Your task to perform on an android device: toggle airplane mode Image 0: 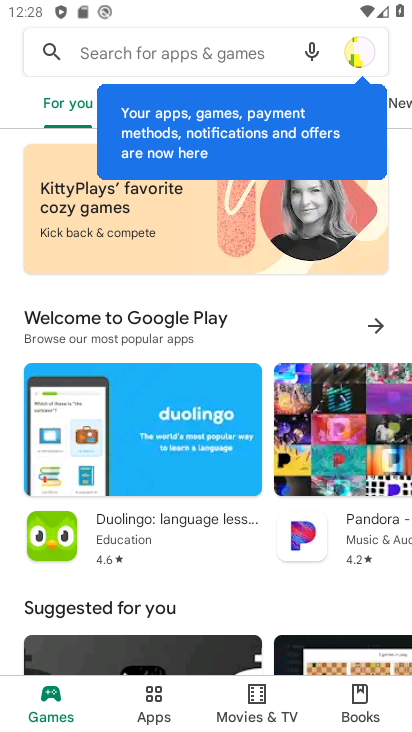
Step 0: press home button
Your task to perform on an android device: toggle airplane mode Image 1: 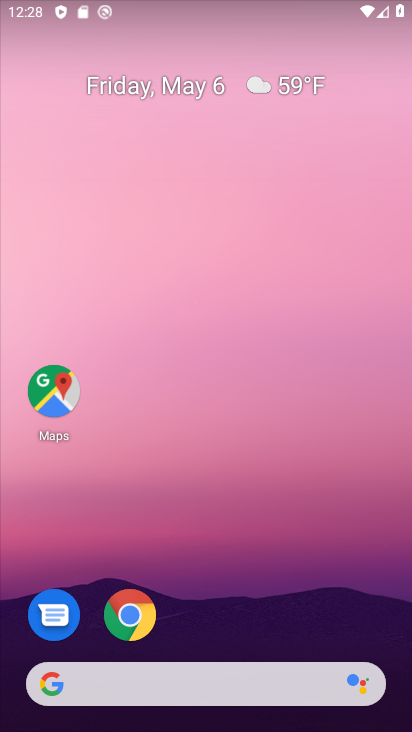
Step 1: drag from (290, 586) to (236, 50)
Your task to perform on an android device: toggle airplane mode Image 2: 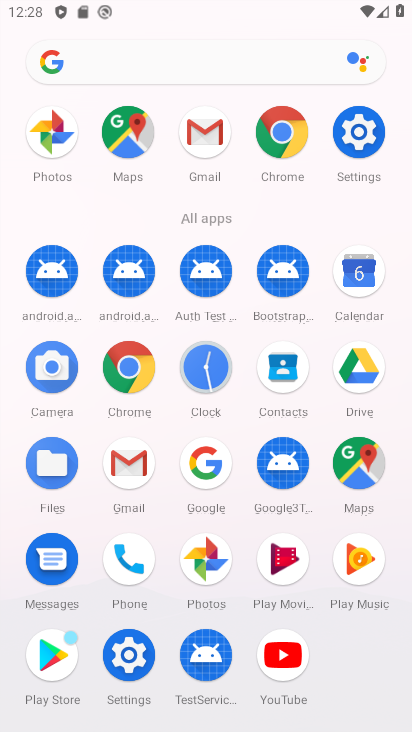
Step 2: click (355, 128)
Your task to perform on an android device: toggle airplane mode Image 3: 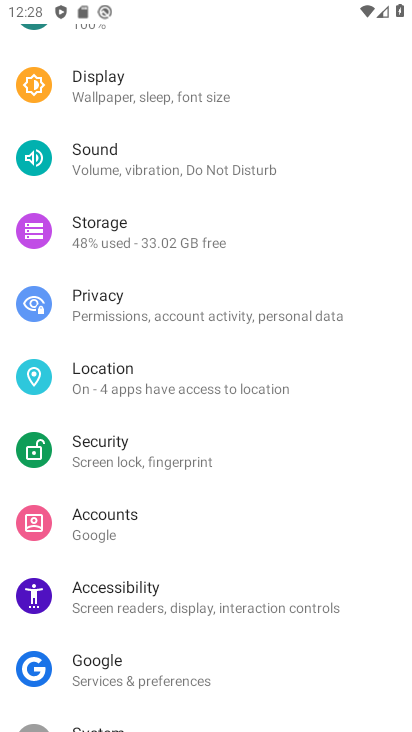
Step 3: drag from (275, 297) to (269, 566)
Your task to perform on an android device: toggle airplane mode Image 4: 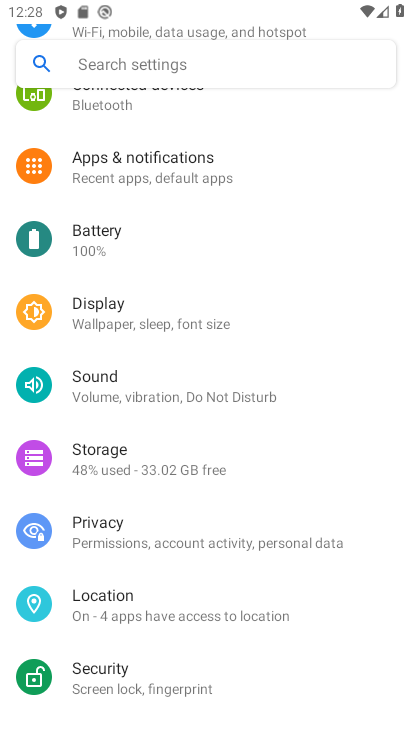
Step 4: drag from (239, 204) to (206, 569)
Your task to perform on an android device: toggle airplane mode Image 5: 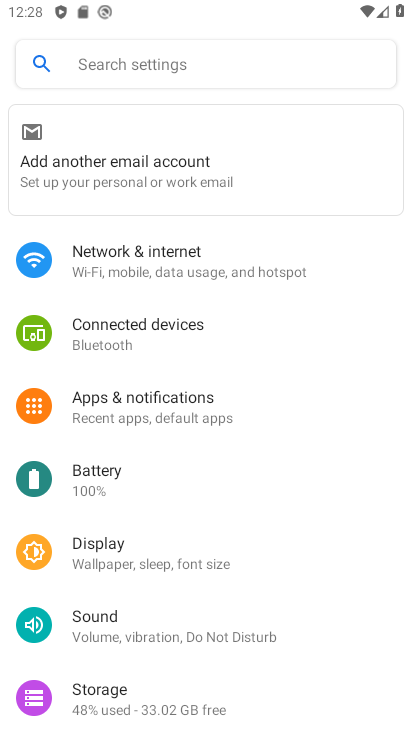
Step 5: click (208, 260)
Your task to perform on an android device: toggle airplane mode Image 6: 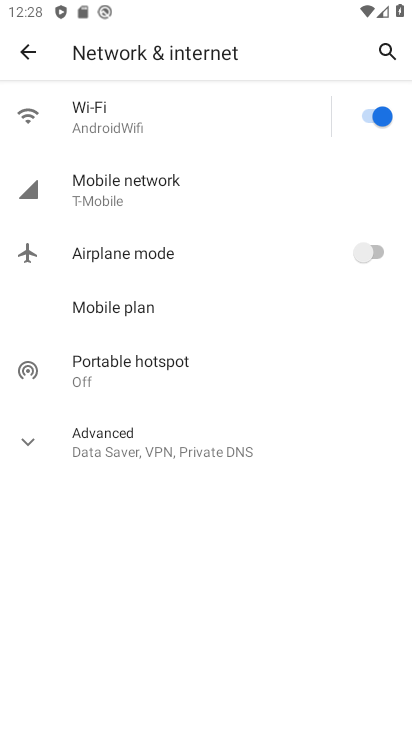
Step 6: click (379, 247)
Your task to perform on an android device: toggle airplane mode Image 7: 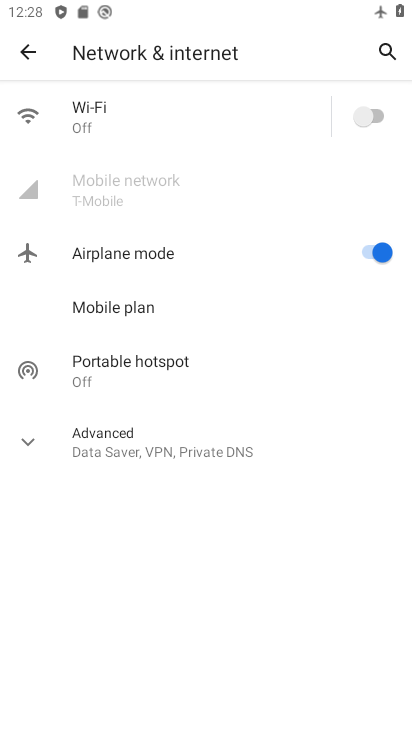
Step 7: task complete